Your task to perform on an android device: change the clock display to analog Image 0: 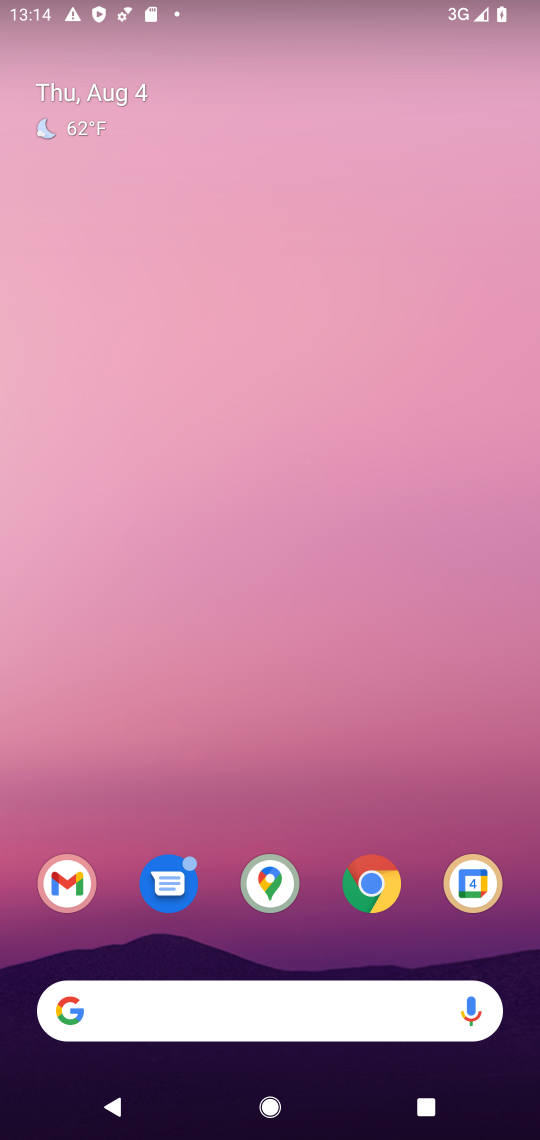
Step 0: drag from (254, 821) to (239, 252)
Your task to perform on an android device: change the clock display to analog Image 1: 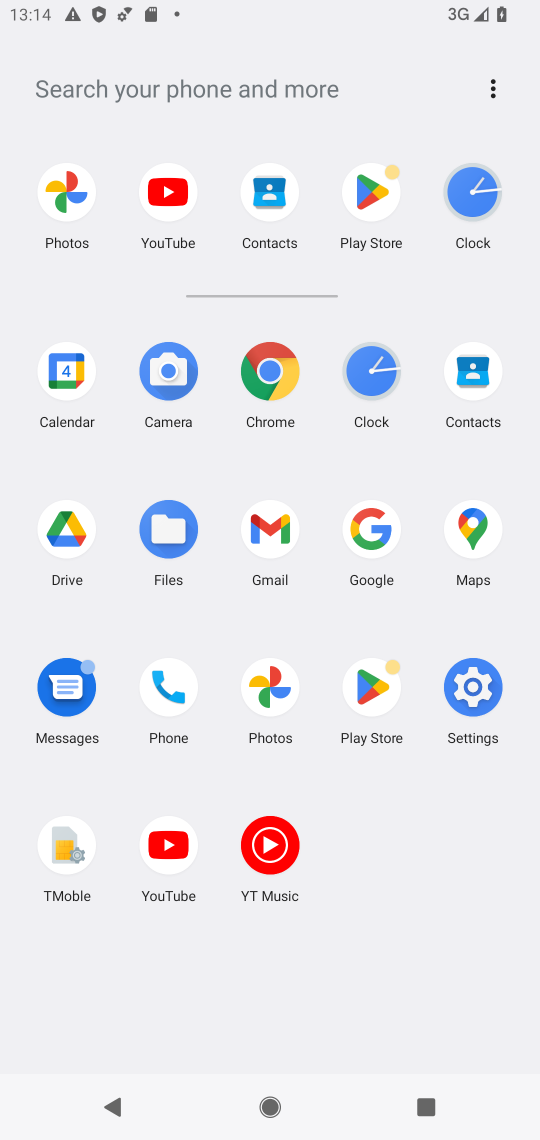
Step 1: click (466, 708)
Your task to perform on an android device: change the clock display to analog Image 2: 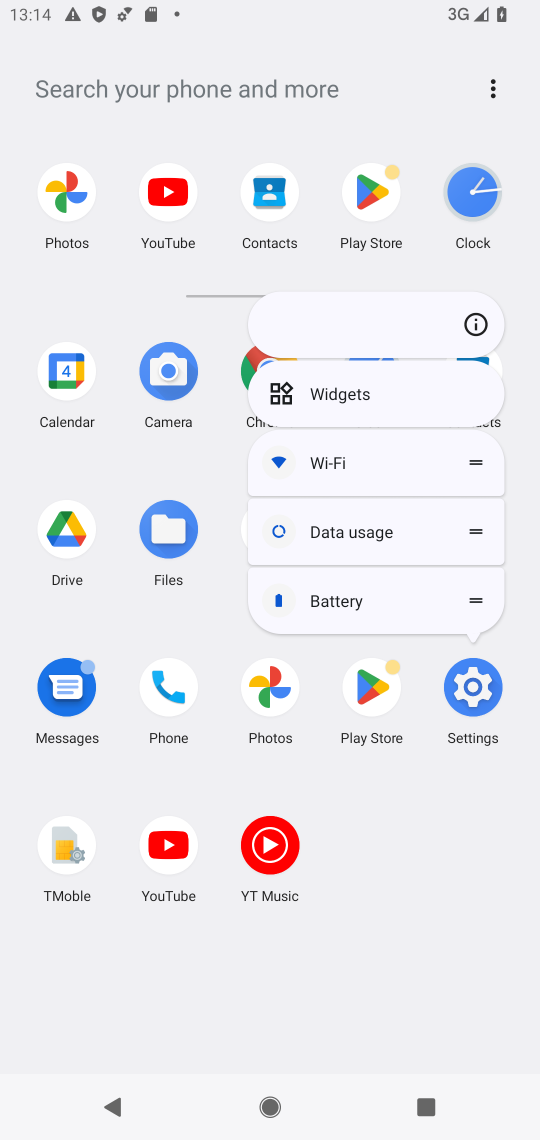
Step 2: click (416, 860)
Your task to perform on an android device: change the clock display to analog Image 3: 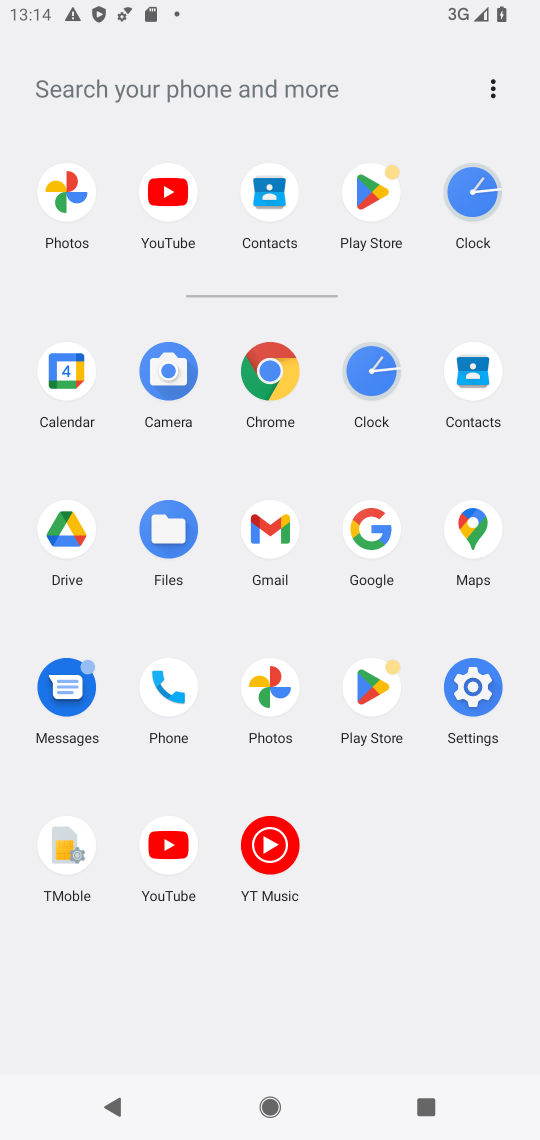
Step 3: click (476, 188)
Your task to perform on an android device: change the clock display to analog Image 4: 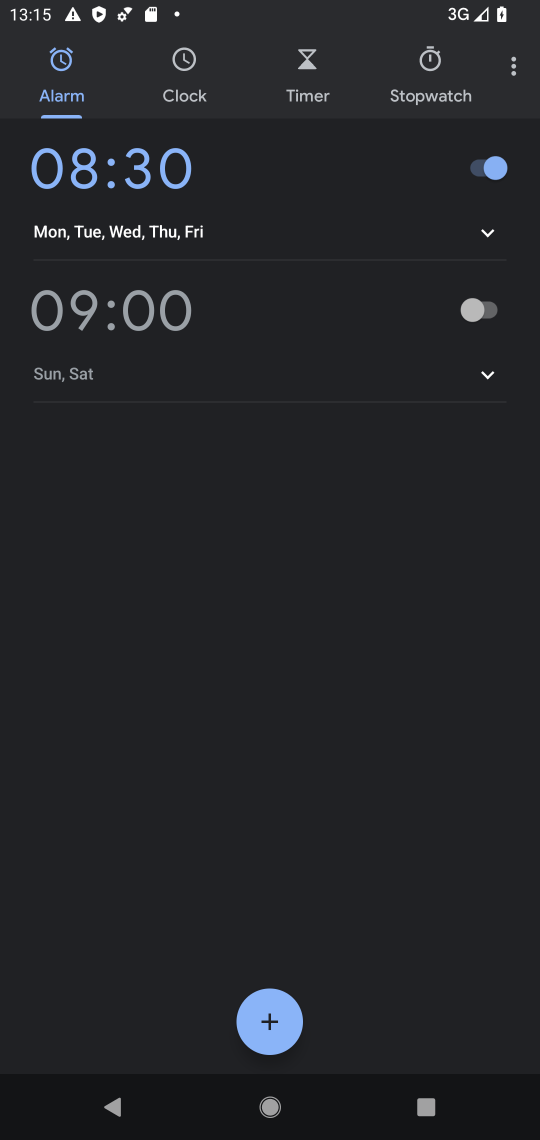
Step 4: drag from (523, 75) to (391, 133)
Your task to perform on an android device: change the clock display to analog Image 5: 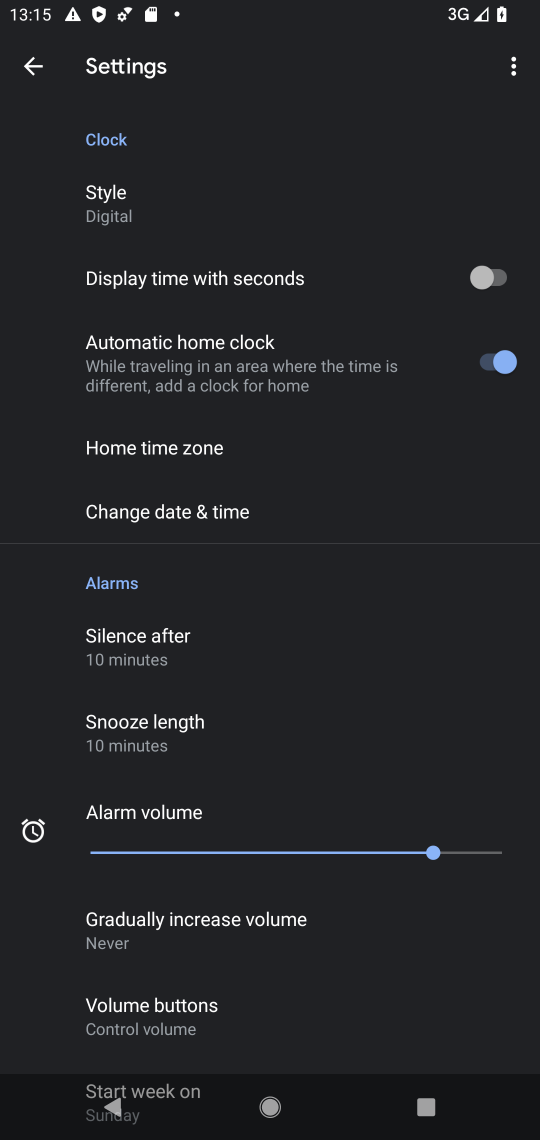
Step 5: click (143, 217)
Your task to perform on an android device: change the clock display to analog Image 6: 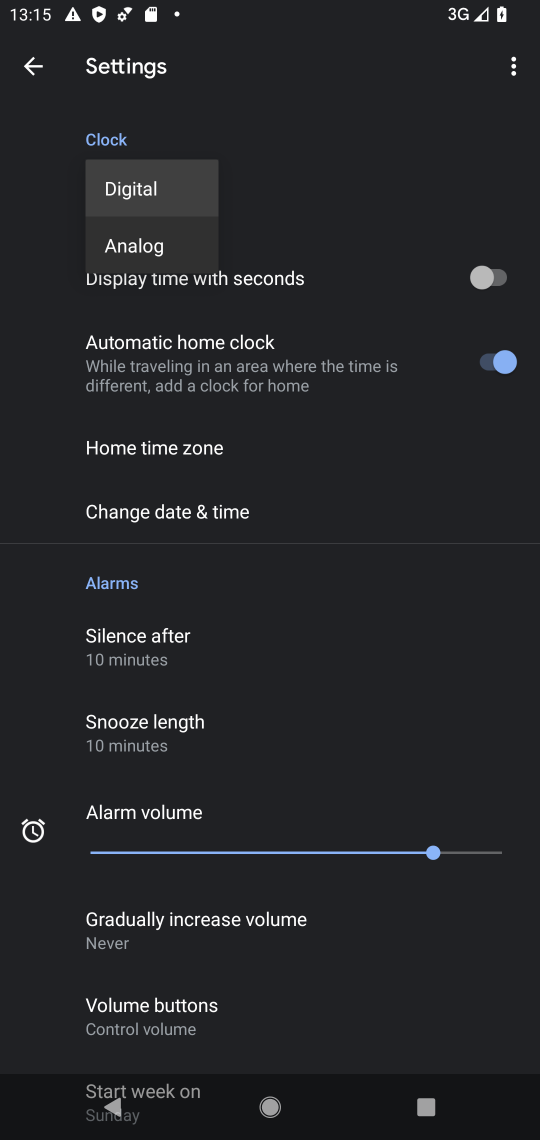
Step 6: click (171, 245)
Your task to perform on an android device: change the clock display to analog Image 7: 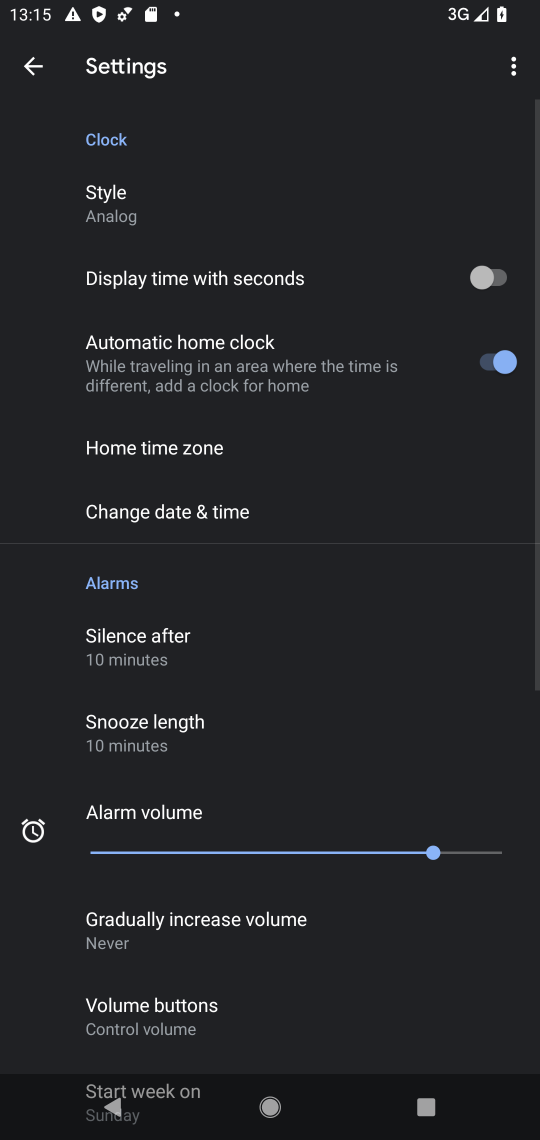
Step 7: task complete